Your task to perform on an android device: What is the recent news? Image 0: 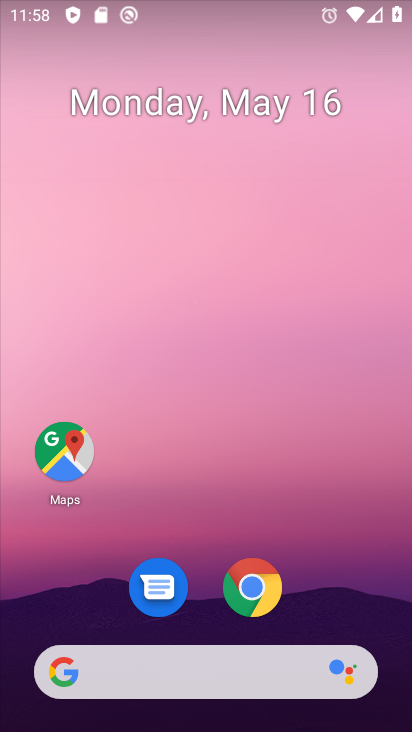
Step 0: drag from (397, 642) to (343, 94)
Your task to perform on an android device: What is the recent news? Image 1: 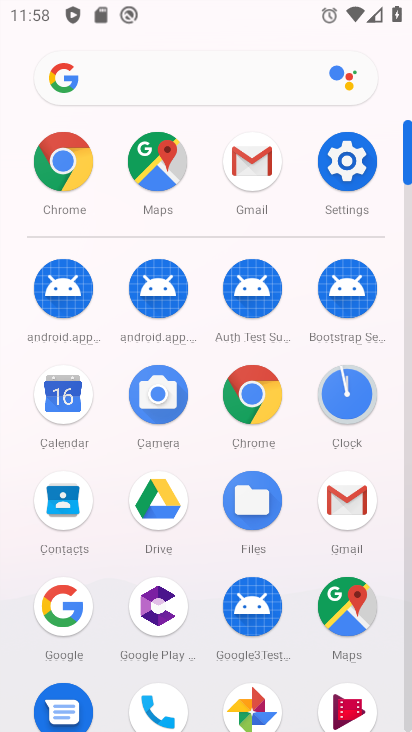
Step 1: click (70, 621)
Your task to perform on an android device: What is the recent news? Image 2: 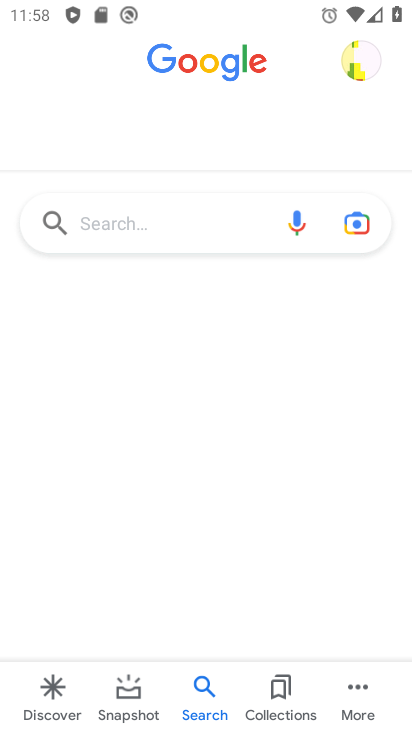
Step 2: click (165, 215)
Your task to perform on an android device: What is the recent news? Image 3: 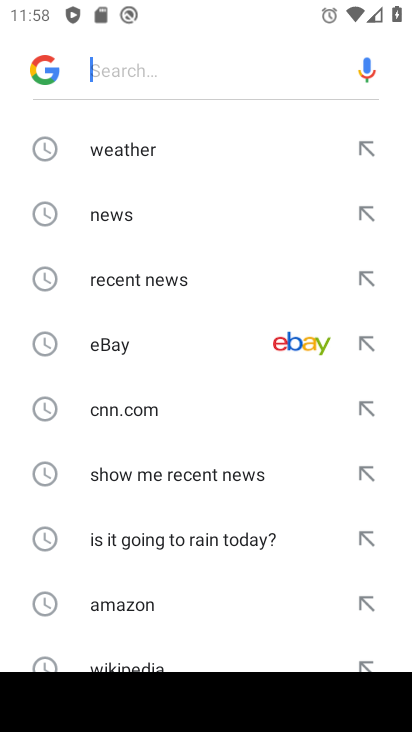
Step 3: click (164, 277)
Your task to perform on an android device: What is the recent news? Image 4: 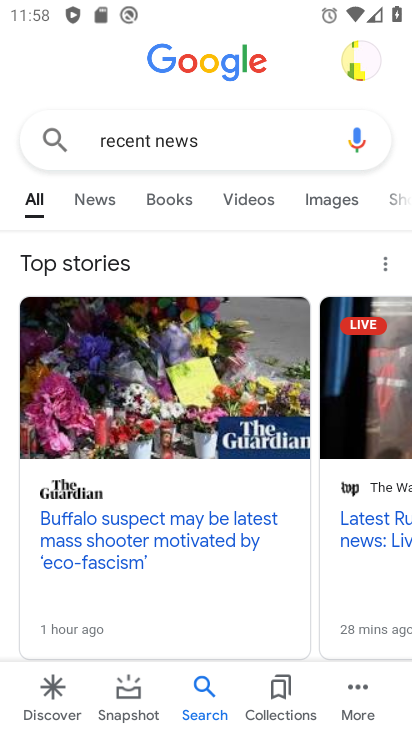
Step 4: task complete